Your task to perform on an android device: Open Google Maps and go to "Timeline" Image 0: 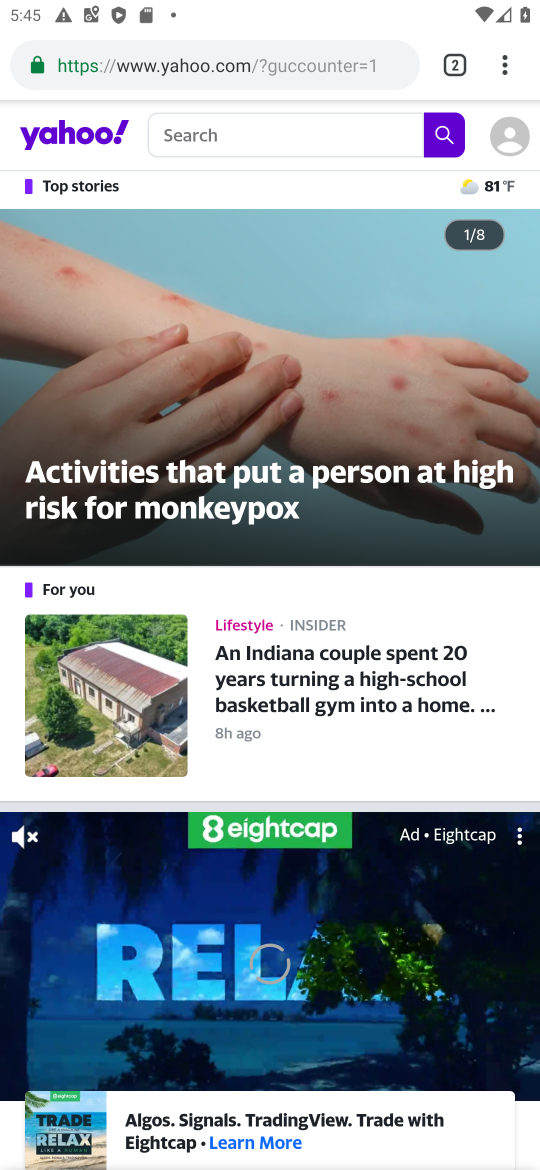
Step 0: press home button
Your task to perform on an android device: Open Google Maps and go to "Timeline" Image 1: 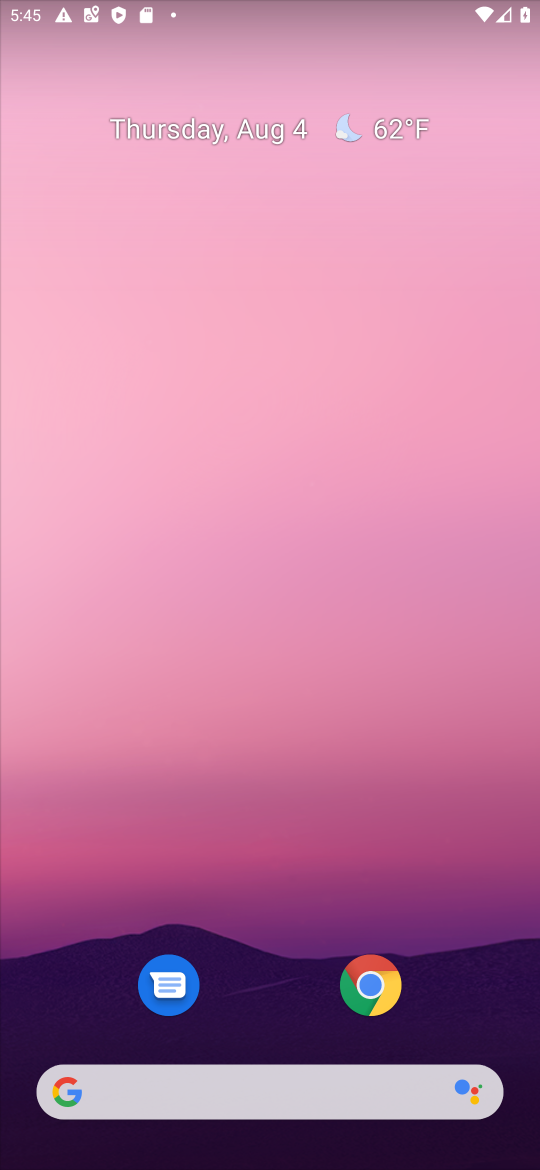
Step 1: drag from (281, 1089) to (327, 565)
Your task to perform on an android device: Open Google Maps and go to "Timeline" Image 2: 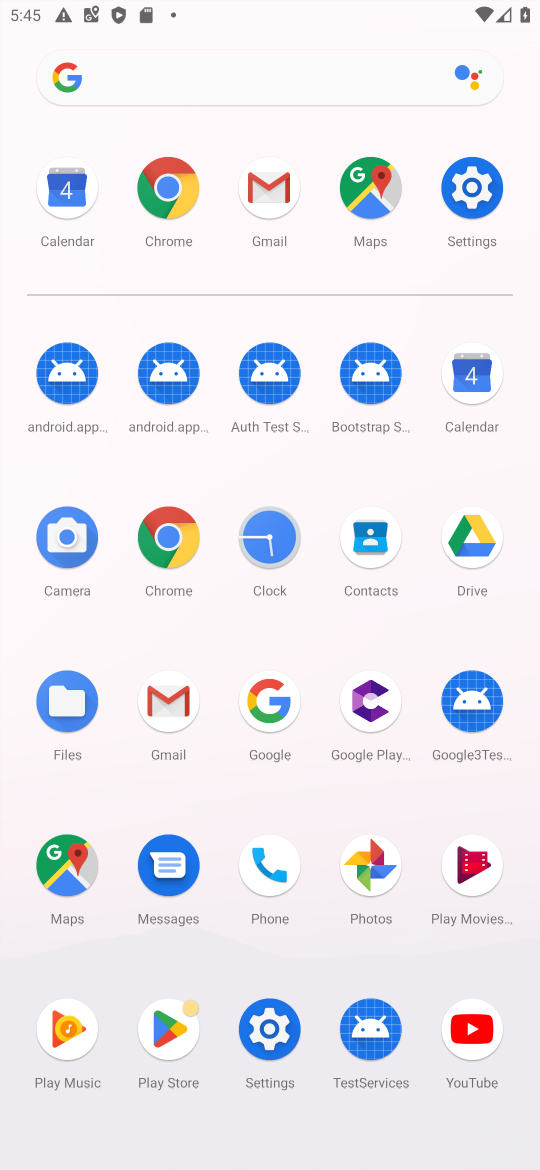
Step 2: click (70, 882)
Your task to perform on an android device: Open Google Maps and go to "Timeline" Image 3: 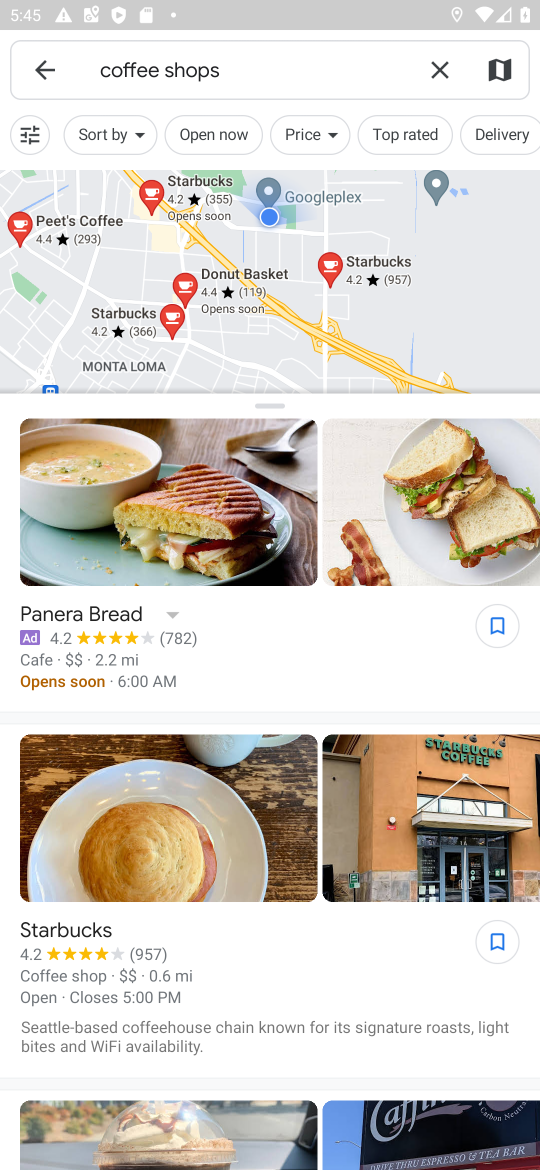
Step 3: click (40, 69)
Your task to perform on an android device: Open Google Maps and go to "Timeline" Image 4: 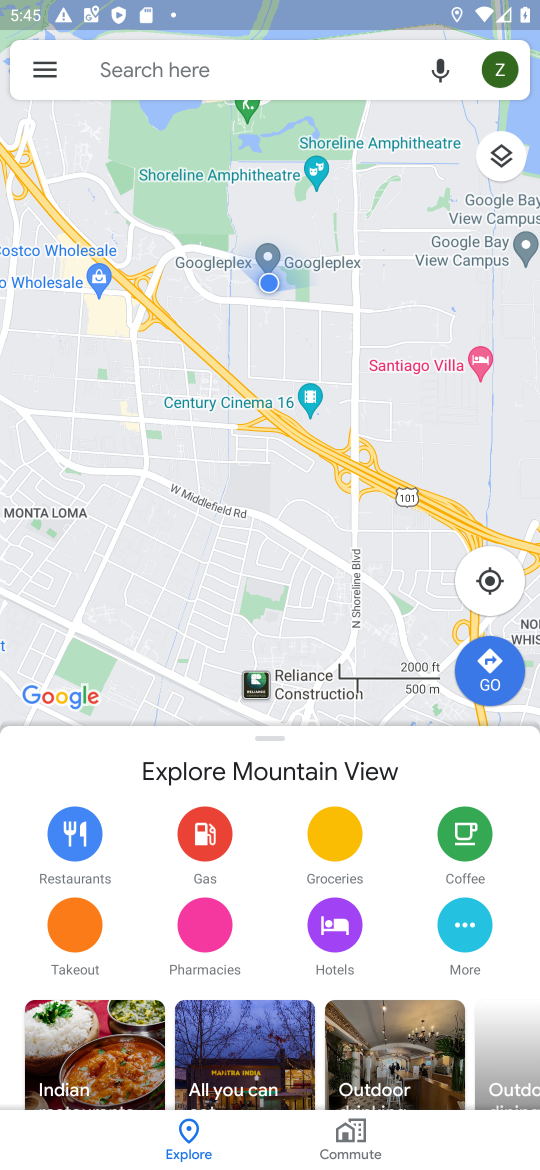
Step 4: click (40, 69)
Your task to perform on an android device: Open Google Maps and go to "Timeline" Image 5: 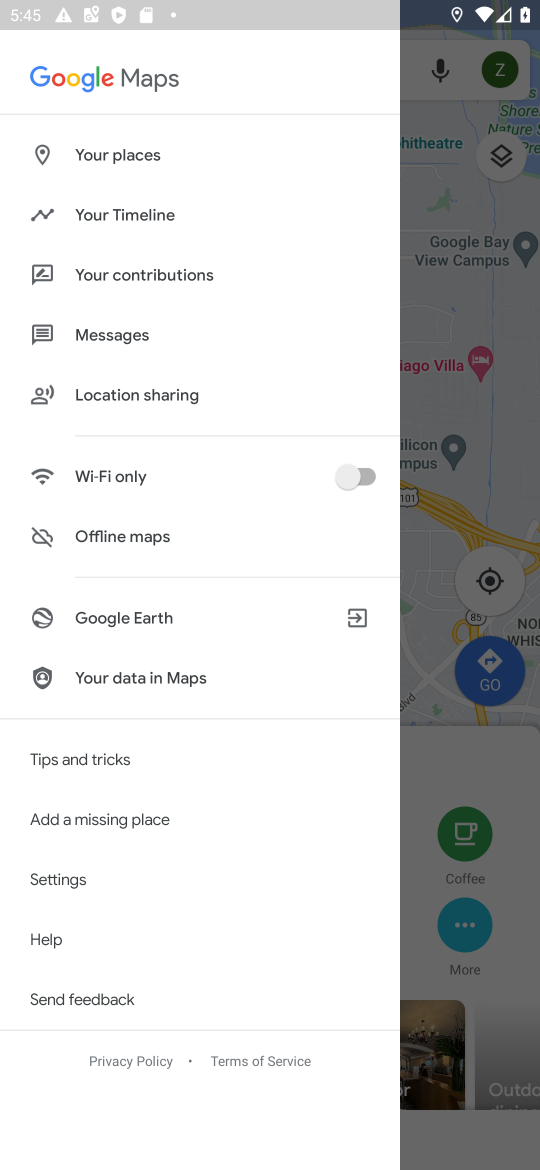
Step 5: click (139, 212)
Your task to perform on an android device: Open Google Maps and go to "Timeline" Image 6: 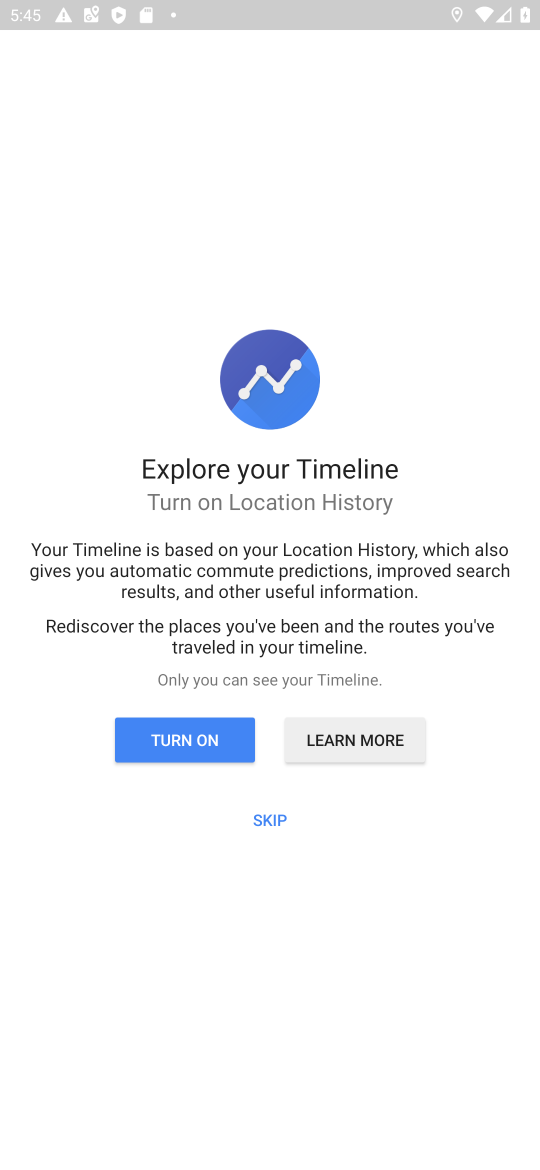
Step 6: click (205, 739)
Your task to perform on an android device: Open Google Maps and go to "Timeline" Image 7: 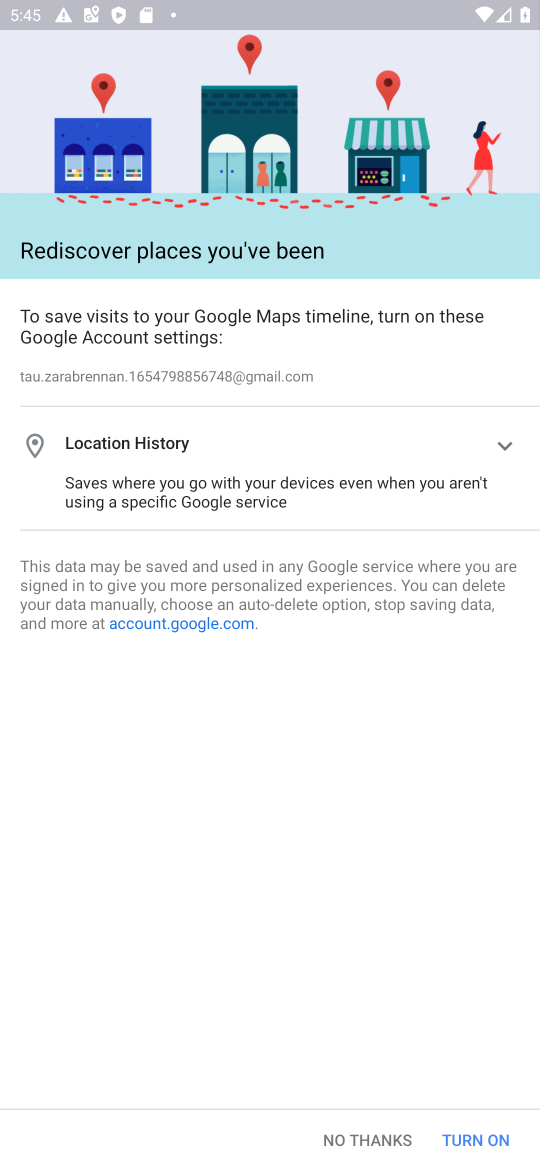
Step 7: task complete